Your task to perform on an android device: Open display settings Image 0: 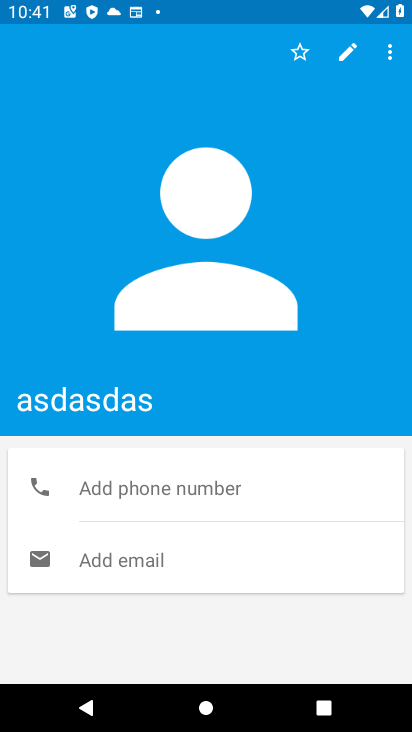
Step 0: drag from (256, 566) to (275, 209)
Your task to perform on an android device: Open display settings Image 1: 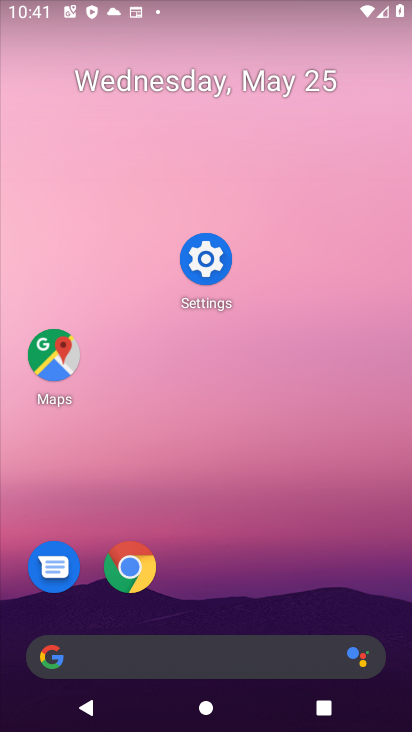
Step 1: click (338, 148)
Your task to perform on an android device: Open display settings Image 2: 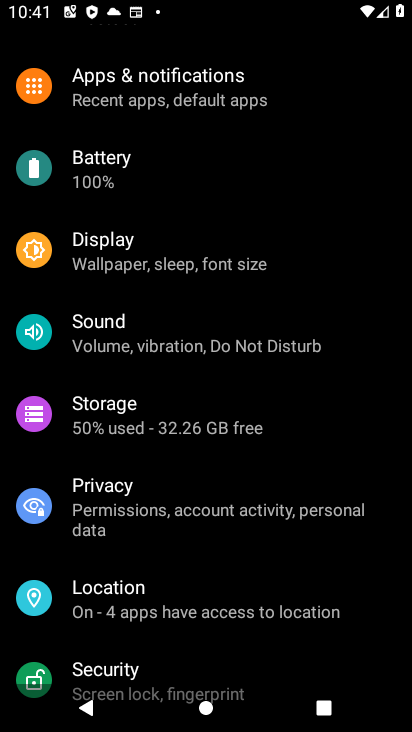
Step 2: click (141, 243)
Your task to perform on an android device: Open display settings Image 3: 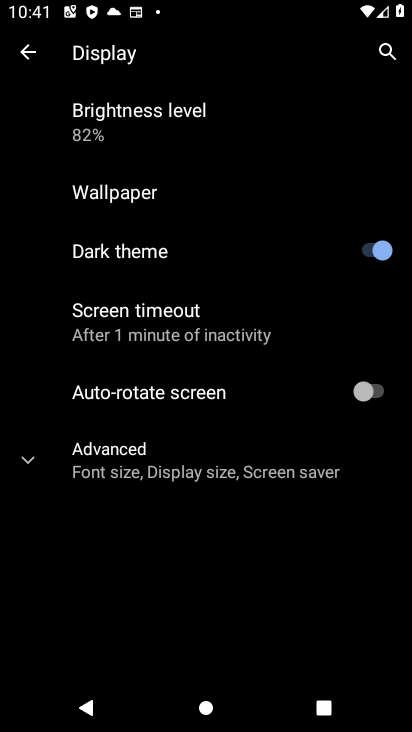
Step 3: task complete